Your task to perform on an android device: turn on sleep mode Image 0: 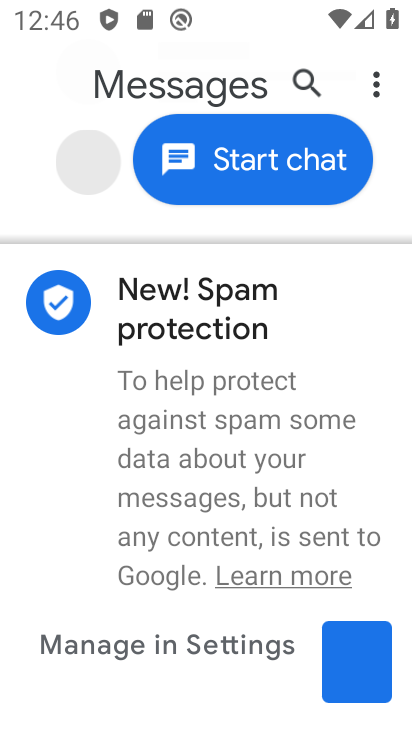
Step 0: press home button
Your task to perform on an android device: turn on sleep mode Image 1: 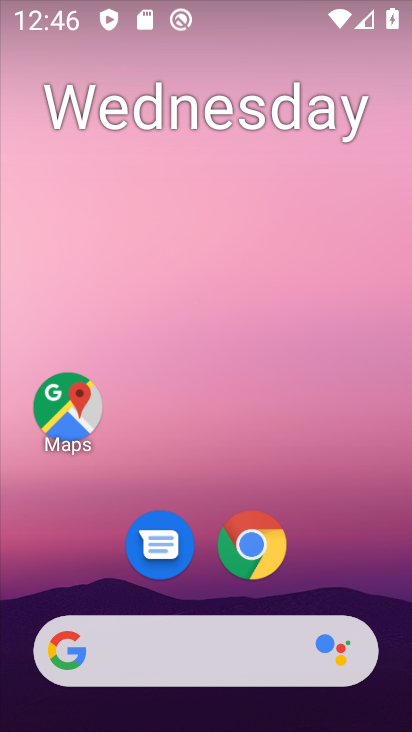
Step 1: drag from (181, 588) to (188, 100)
Your task to perform on an android device: turn on sleep mode Image 2: 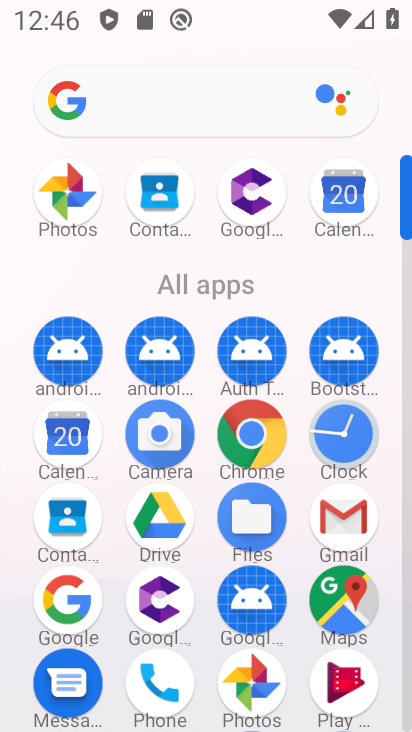
Step 2: drag from (208, 554) to (226, 306)
Your task to perform on an android device: turn on sleep mode Image 3: 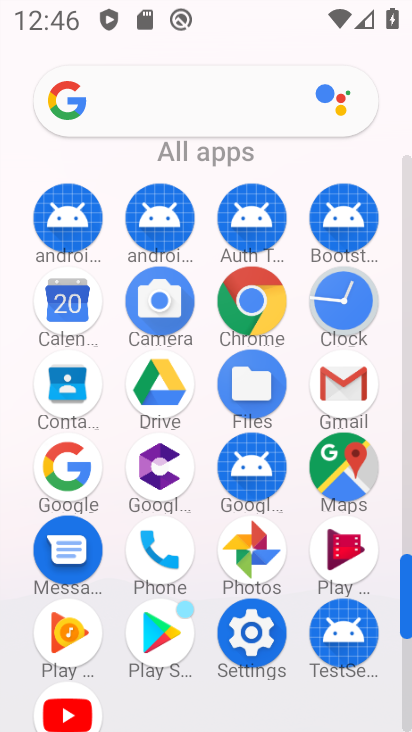
Step 3: click (255, 632)
Your task to perform on an android device: turn on sleep mode Image 4: 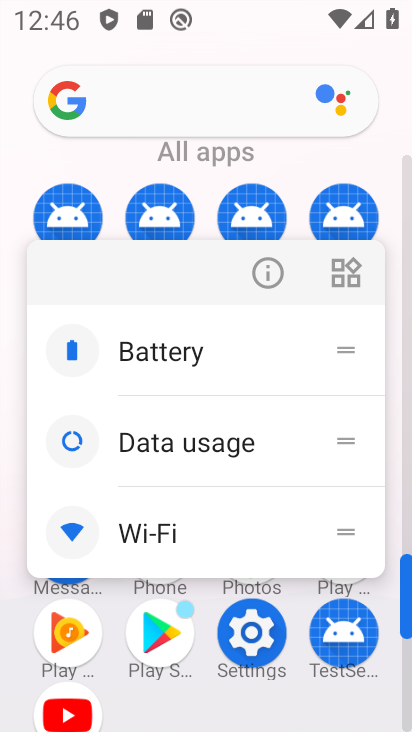
Step 4: click (270, 270)
Your task to perform on an android device: turn on sleep mode Image 5: 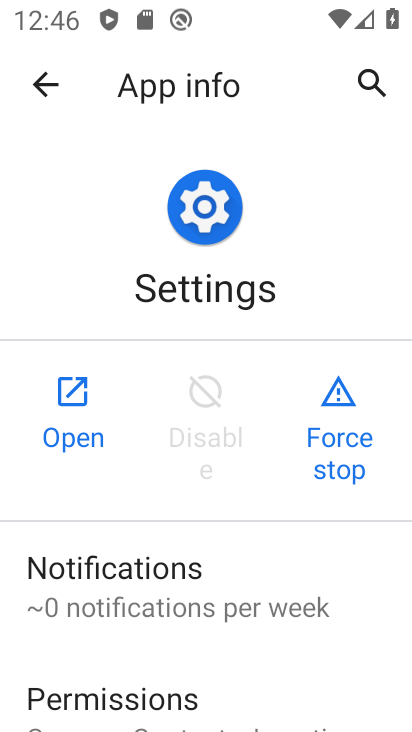
Step 5: click (78, 429)
Your task to perform on an android device: turn on sleep mode Image 6: 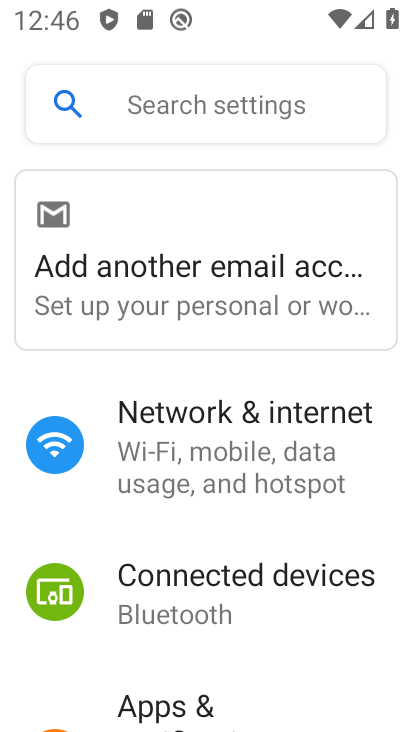
Step 6: drag from (212, 571) to (240, 248)
Your task to perform on an android device: turn on sleep mode Image 7: 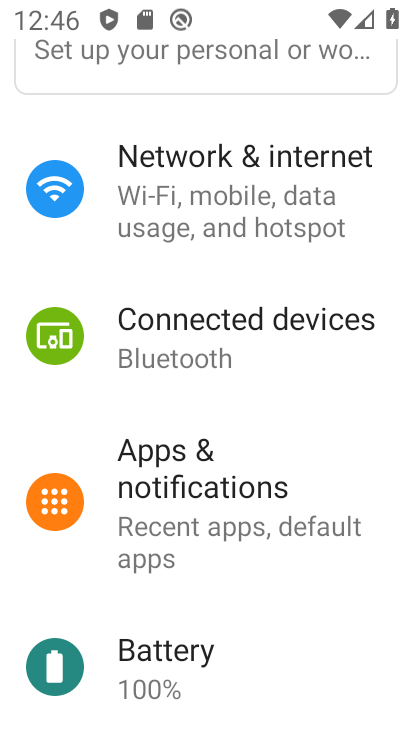
Step 7: drag from (235, 607) to (262, 339)
Your task to perform on an android device: turn on sleep mode Image 8: 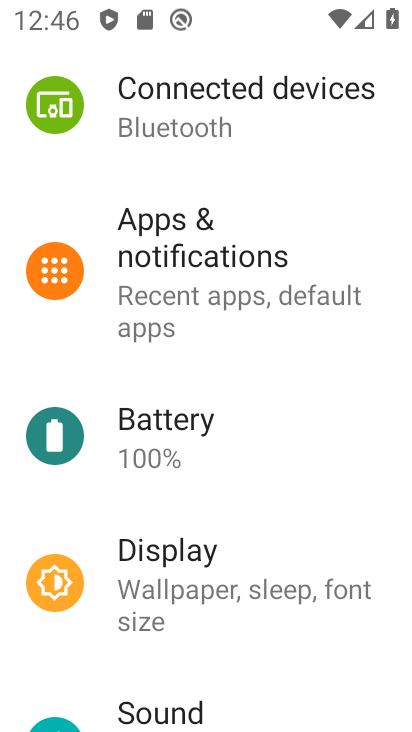
Step 8: click (217, 580)
Your task to perform on an android device: turn on sleep mode Image 9: 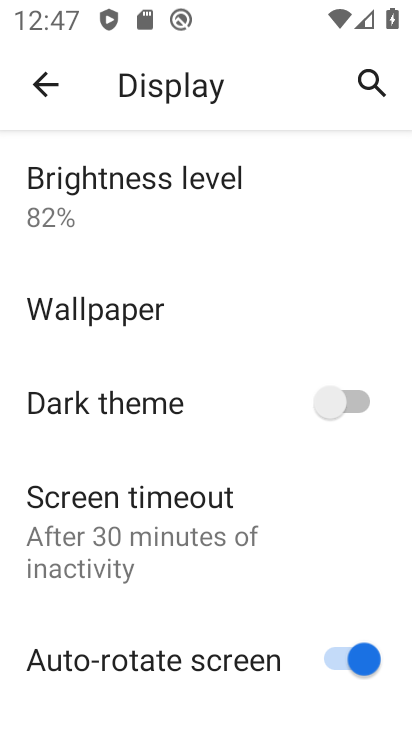
Step 9: task complete